Your task to perform on an android device: Search for bose soundlink mini on bestbuy, select the first entry, and add it to the cart. Image 0: 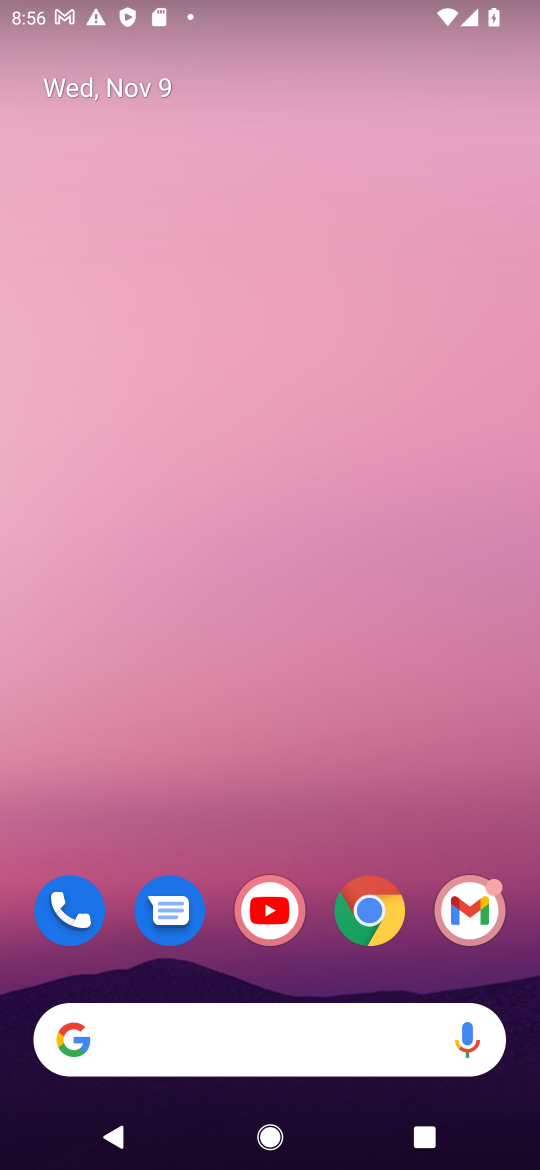
Step 0: click (370, 912)
Your task to perform on an android device: Search for bose soundlink mini on bestbuy, select the first entry, and add it to the cart. Image 1: 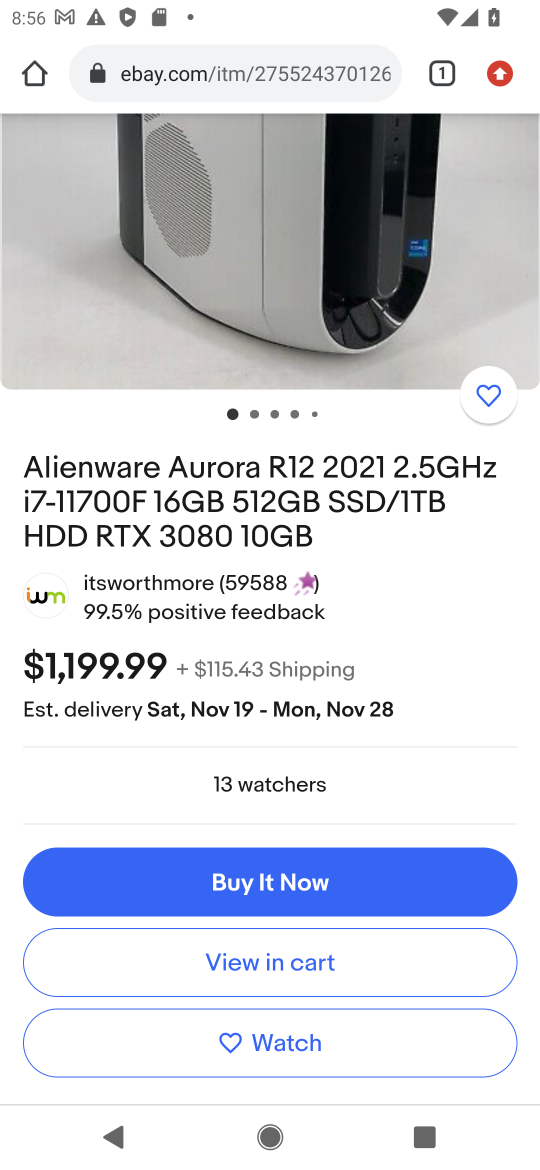
Step 1: click (216, 74)
Your task to perform on an android device: Search for bose soundlink mini on bestbuy, select the first entry, and add it to the cart. Image 2: 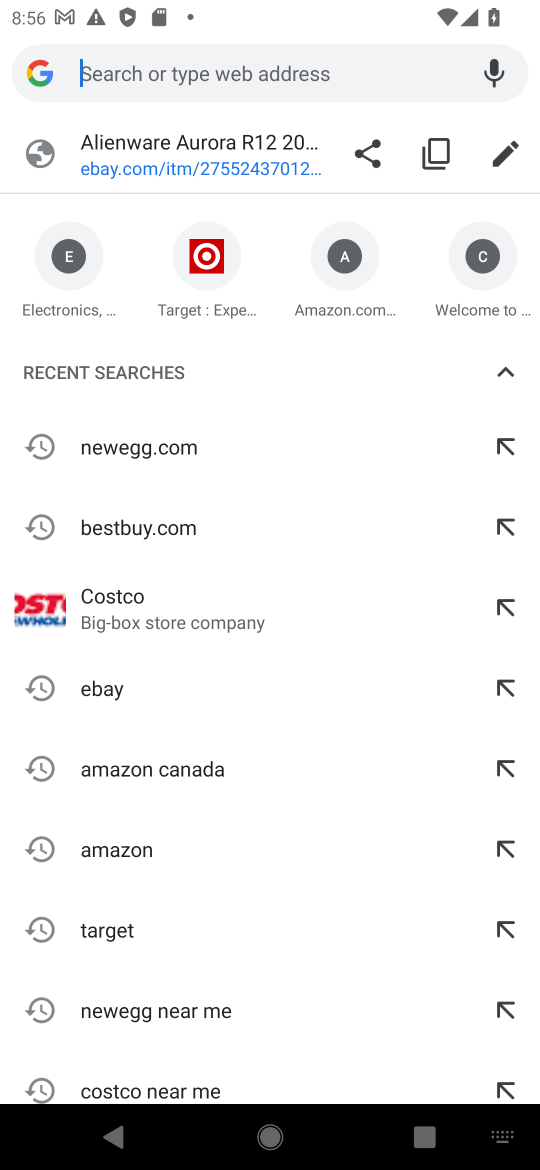
Step 2: click (136, 534)
Your task to perform on an android device: Search for bose soundlink mini on bestbuy, select the first entry, and add it to the cart. Image 3: 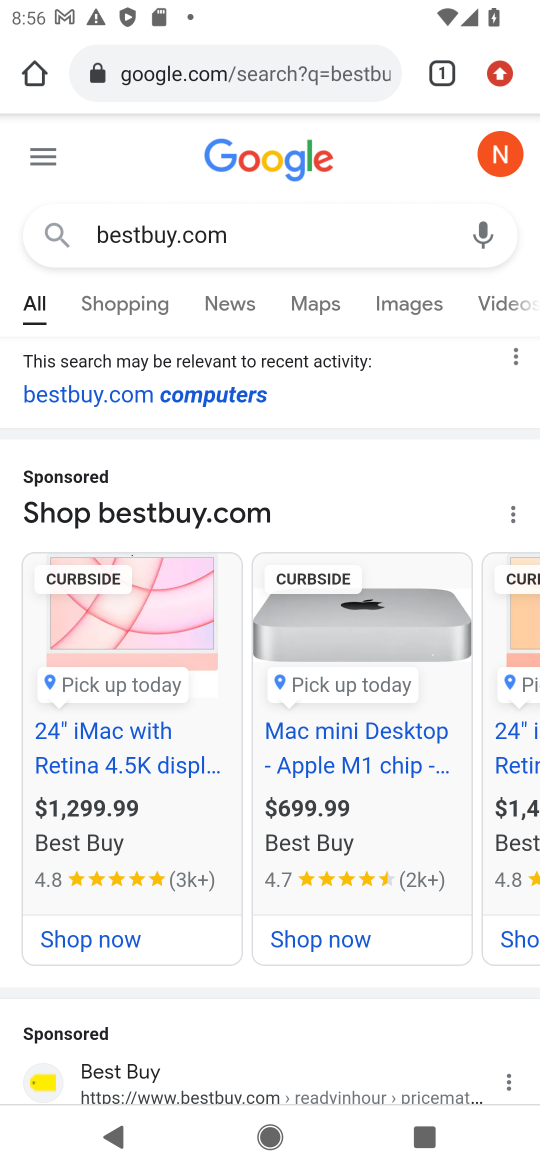
Step 3: drag from (223, 904) to (225, 378)
Your task to perform on an android device: Search for bose soundlink mini on bestbuy, select the first entry, and add it to the cart. Image 4: 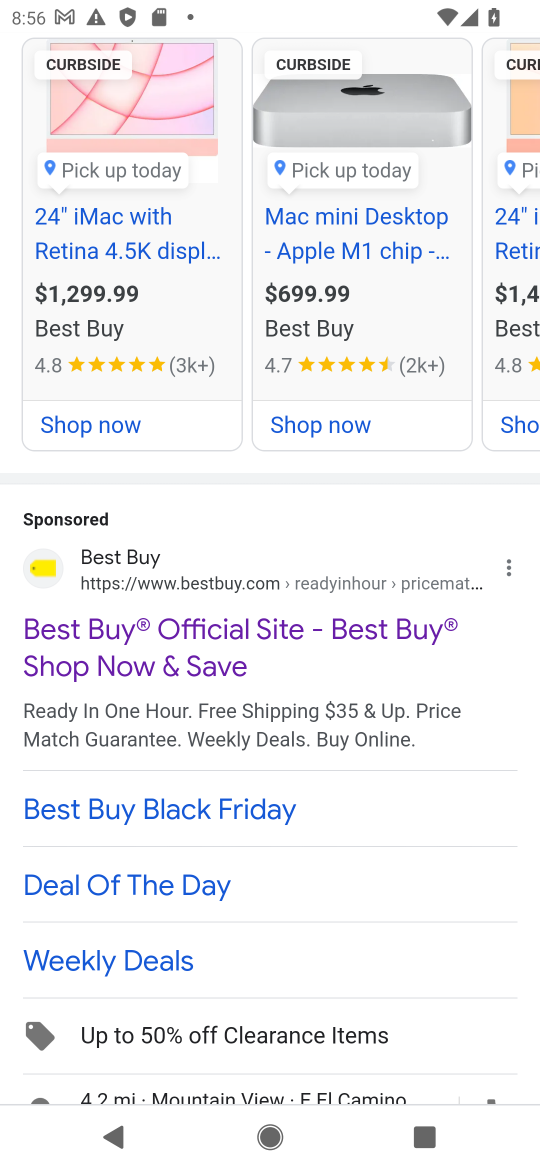
Step 4: drag from (225, 928) to (238, 336)
Your task to perform on an android device: Search for bose soundlink mini on bestbuy, select the first entry, and add it to the cart. Image 5: 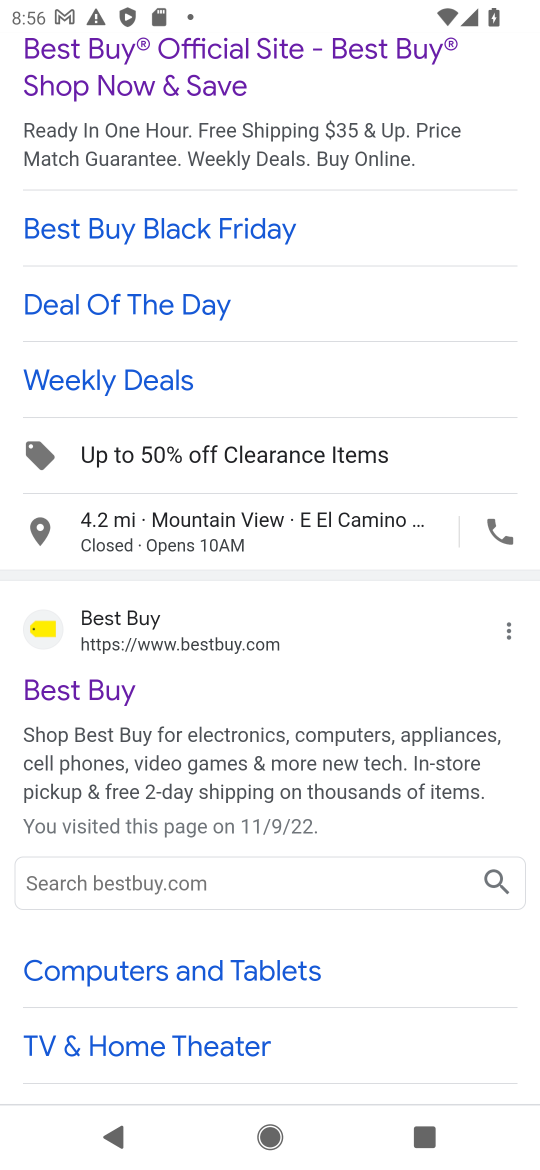
Step 5: click (70, 696)
Your task to perform on an android device: Search for bose soundlink mini on bestbuy, select the first entry, and add it to the cart. Image 6: 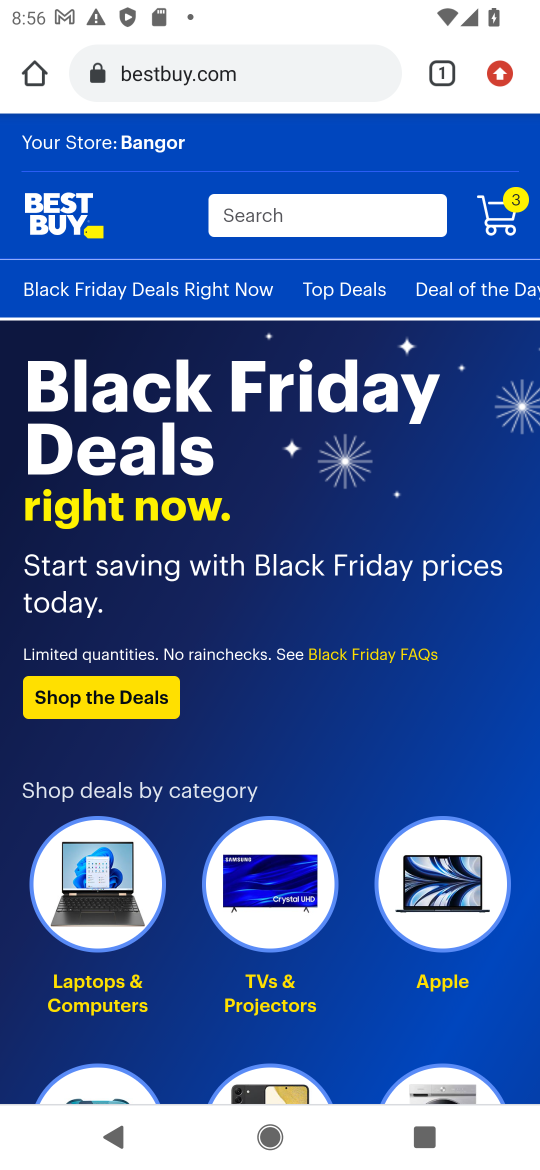
Step 6: click (273, 214)
Your task to perform on an android device: Search for bose soundlink mini on bestbuy, select the first entry, and add it to the cart. Image 7: 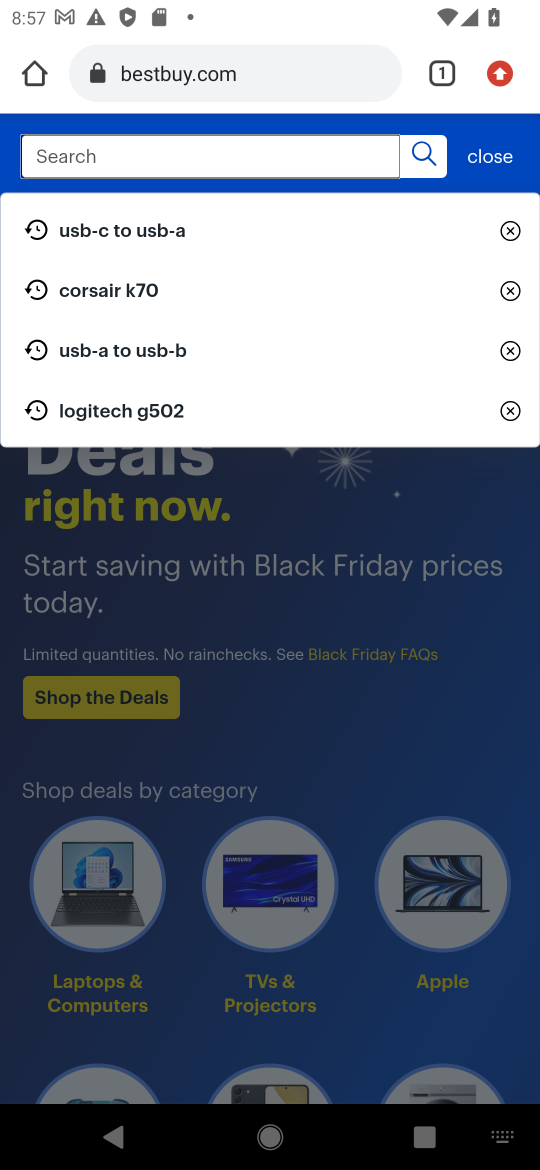
Step 7: type "bose soundlink mini "
Your task to perform on an android device: Search for bose soundlink mini on bestbuy, select the first entry, and add it to the cart. Image 8: 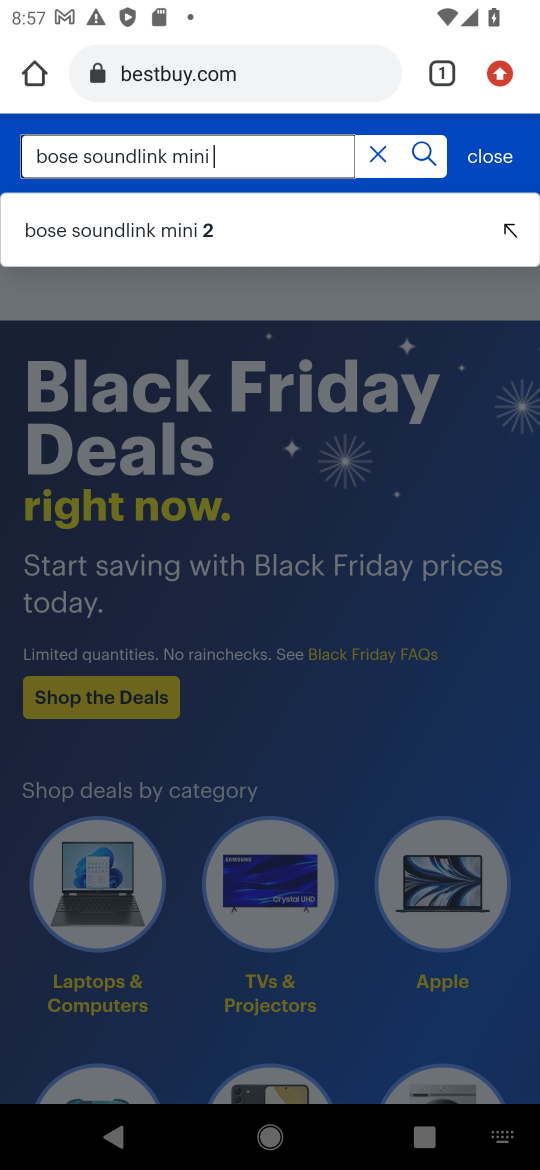
Step 8: click (415, 150)
Your task to perform on an android device: Search for bose soundlink mini on bestbuy, select the first entry, and add it to the cart. Image 9: 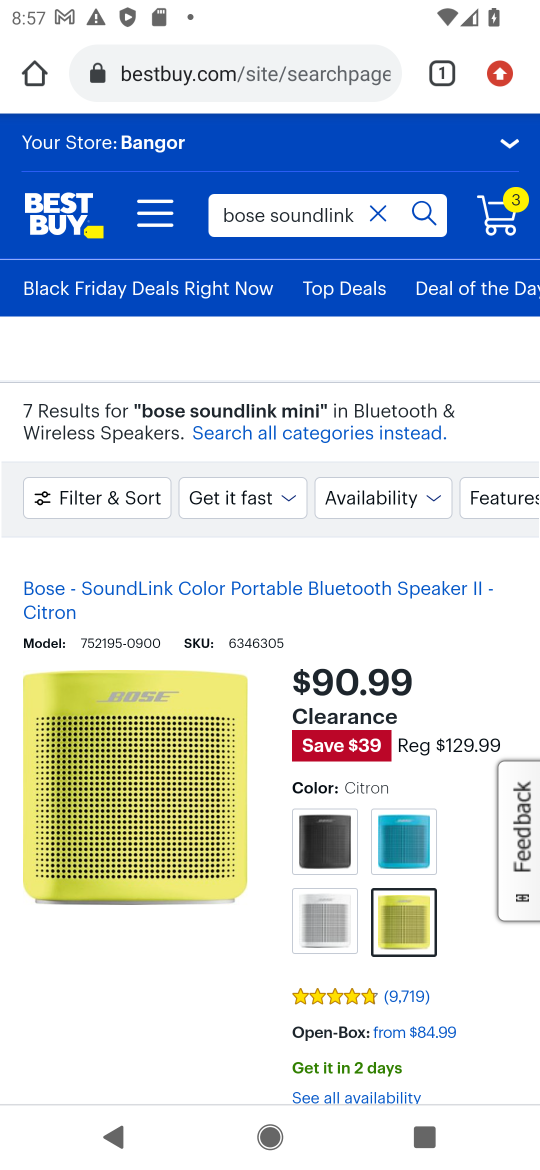
Step 9: task complete